Your task to perform on an android device: turn off smart reply in the gmail app Image 0: 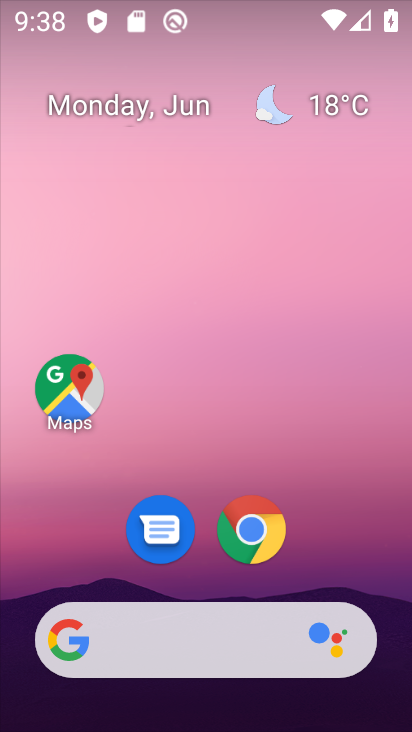
Step 0: drag from (188, 645) to (199, 74)
Your task to perform on an android device: turn off smart reply in the gmail app Image 1: 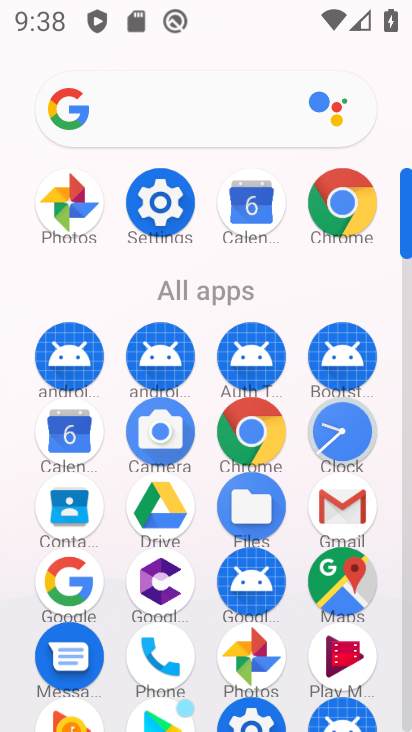
Step 1: click (341, 513)
Your task to perform on an android device: turn off smart reply in the gmail app Image 2: 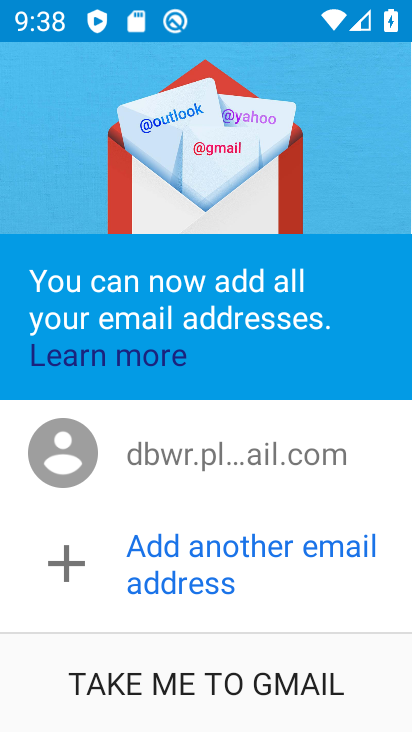
Step 2: click (223, 682)
Your task to perform on an android device: turn off smart reply in the gmail app Image 3: 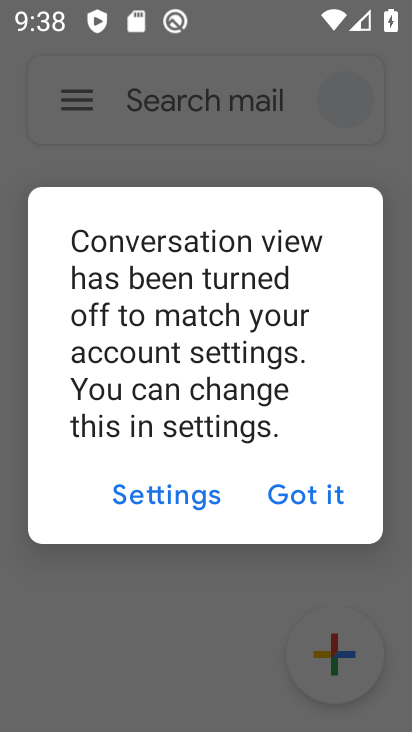
Step 3: click (332, 517)
Your task to perform on an android device: turn off smart reply in the gmail app Image 4: 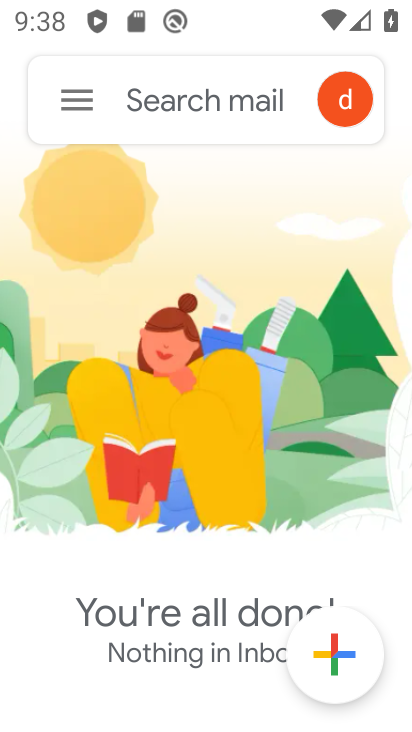
Step 4: click (73, 96)
Your task to perform on an android device: turn off smart reply in the gmail app Image 5: 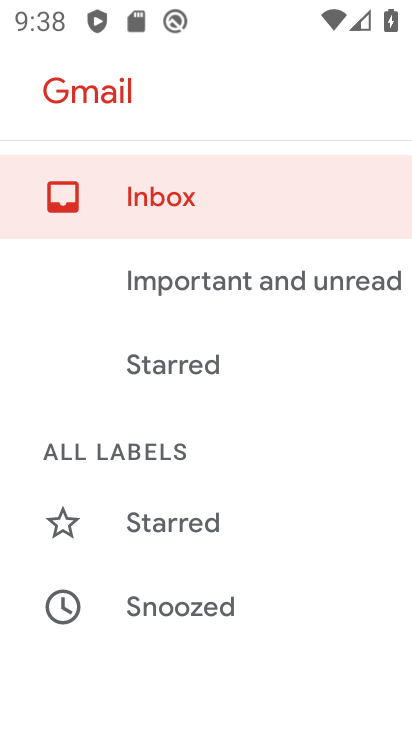
Step 5: drag from (221, 570) to (233, 50)
Your task to perform on an android device: turn off smart reply in the gmail app Image 6: 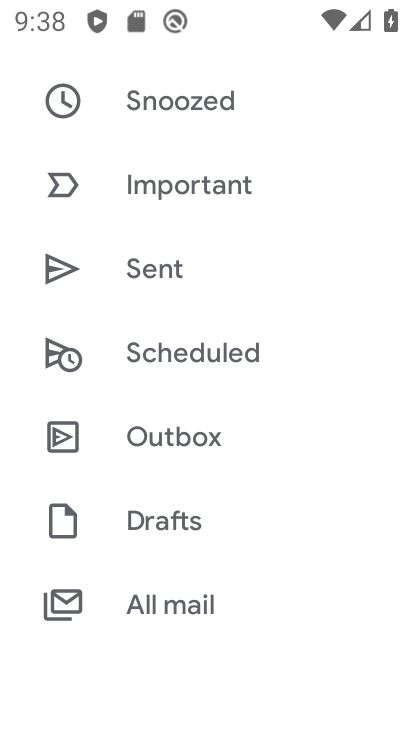
Step 6: drag from (176, 605) to (141, 1)
Your task to perform on an android device: turn off smart reply in the gmail app Image 7: 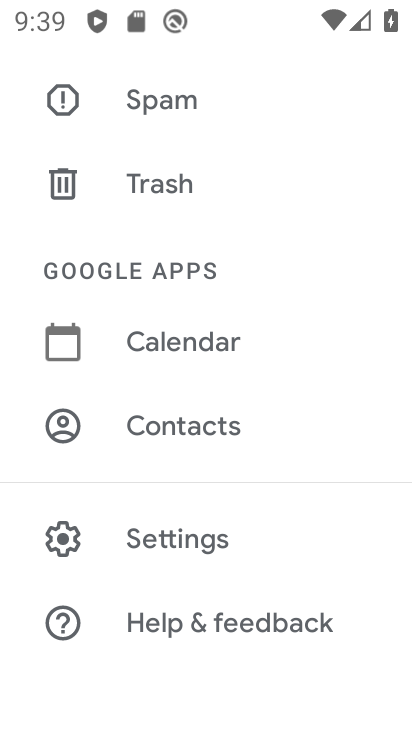
Step 7: click (178, 549)
Your task to perform on an android device: turn off smart reply in the gmail app Image 8: 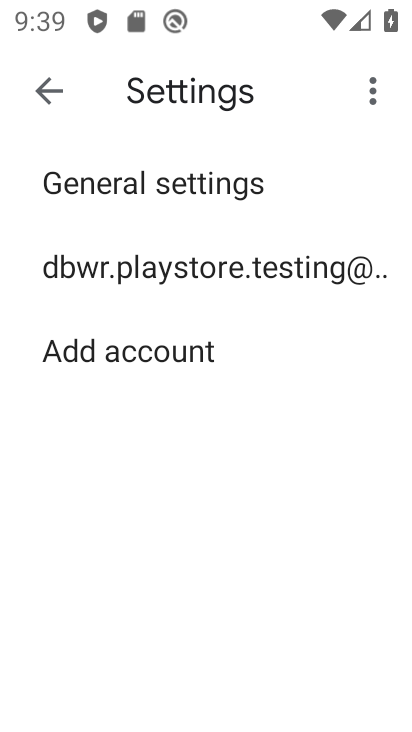
Step 8: click (212, 269)
Your task to perform on an android device: turn off smart reply in the gmail app Image 9: 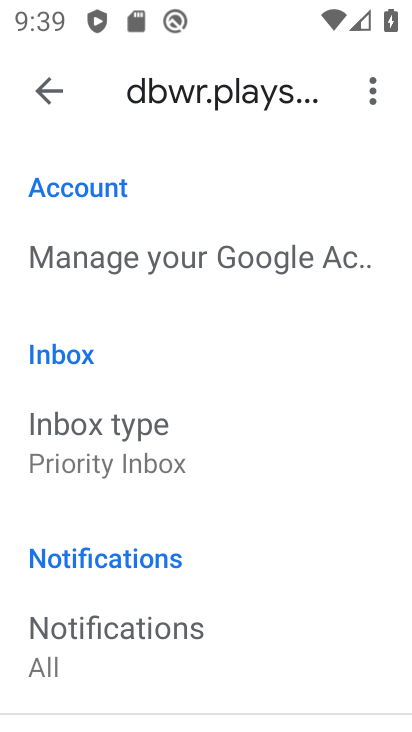
Step 9: drag from (218, 567) to (266, 19)
Your task to perform on an android device: turn off smart reply in the gmail app Image 10: 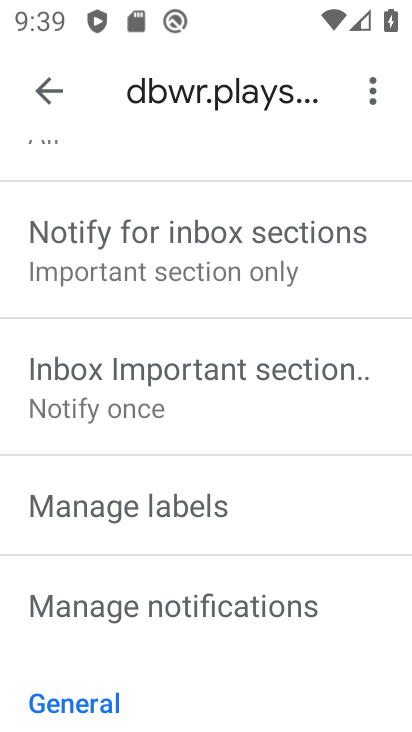
Step 10: drag from (191, 636) to (218, 159)
Your task to perform on an android device: turn off smart reply in the gmail app Image 11: 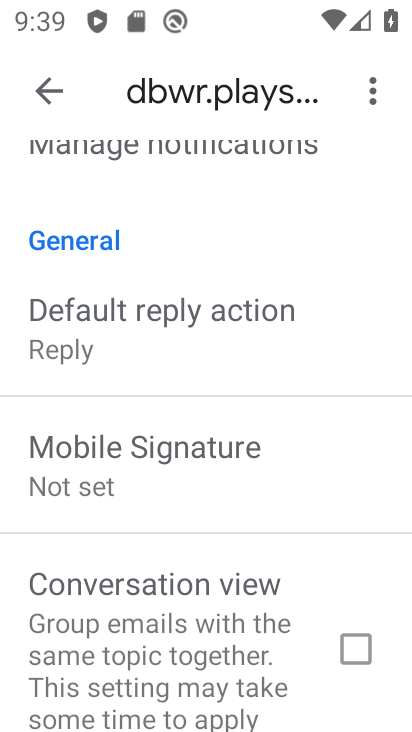
Step 11: drag from (191, 631) to (188, 64)
Your task to perform on an android device: turn off smart reply in the gmail app Image 12: 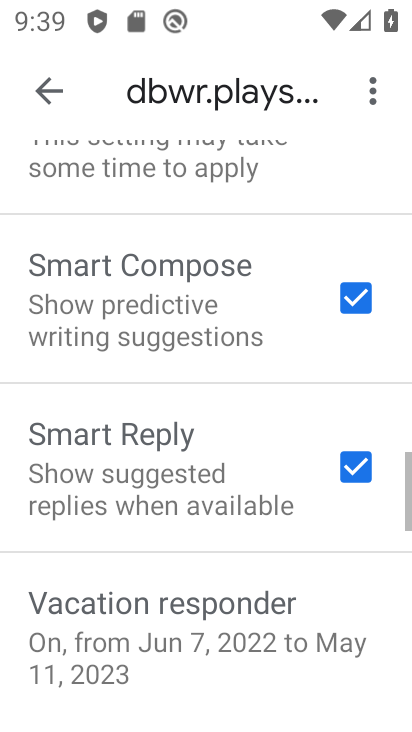
Step 12: click (355, 409)
Your task to perform on an android device: turn off smart reply in the gmail app Image 13: 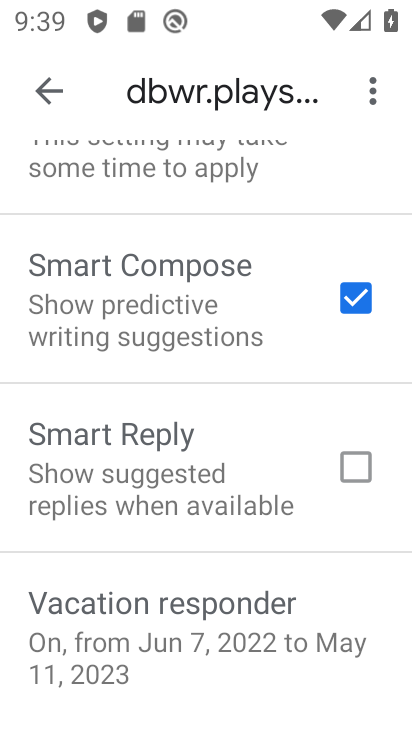
Step 13: task complete